Your task to perform on an android device: change the clock style Image 0: 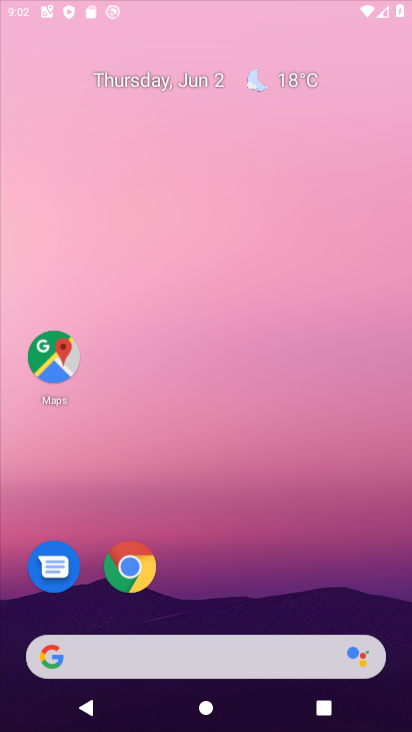
Step 0: press home button
Your task to perform on an android device: change the clock style Image 1: 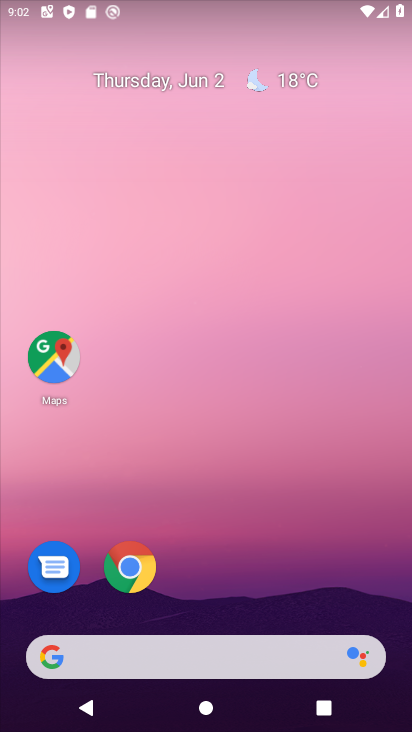
Step 1: drag from (221, 615) to (222, 0)
Your task to perform on an android device: change the clock style Image 2: 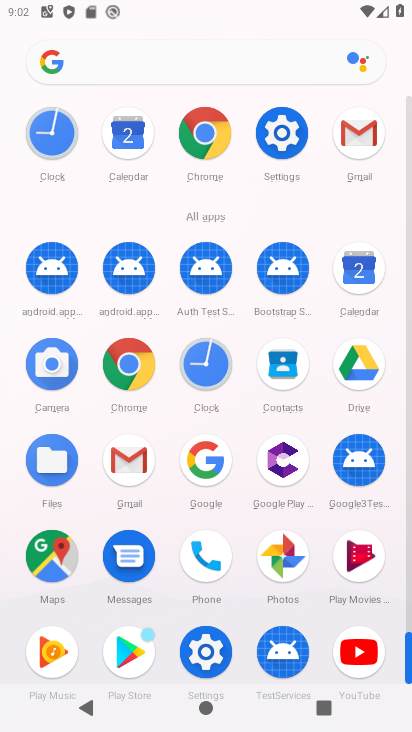
Step 2: click (205, 353)
Your task to perform on an android device: change the clock style Image 3: 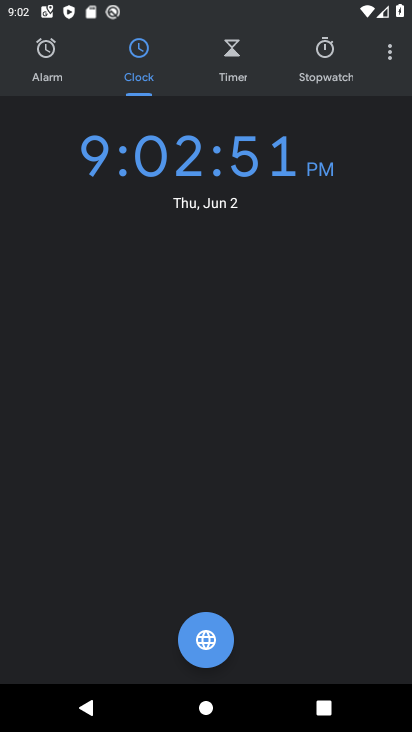
Step 3: click (382, 52)
Your task to perform on an android device: change the clock style Image 4: 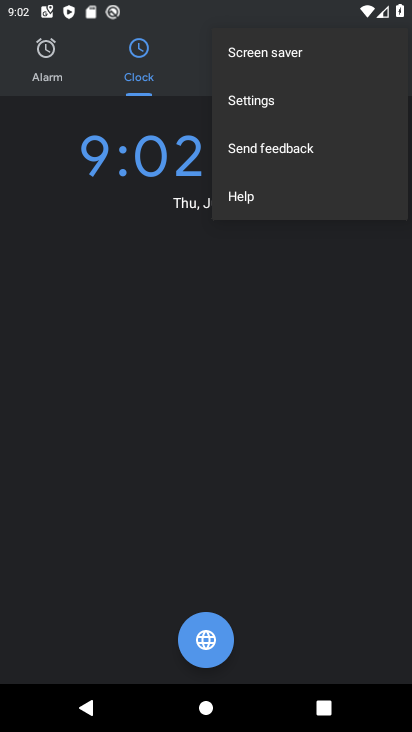
Step 4: click (282, 97)
Your task to perform on an android device: change the clock style Image 5: 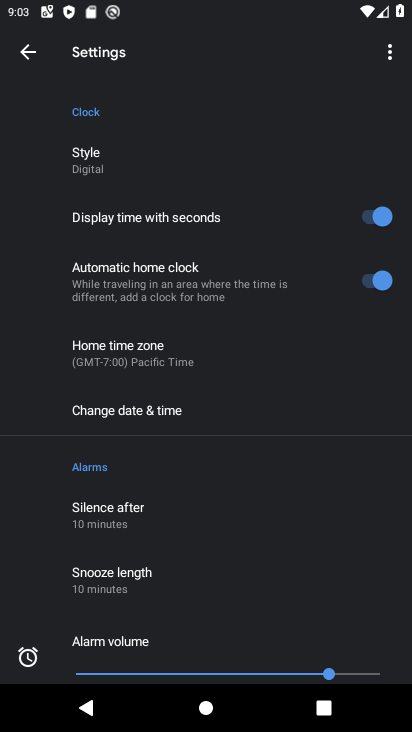
Step 5: click (147, 161)
Your task to perform on an android device: change the clock style Image 6: 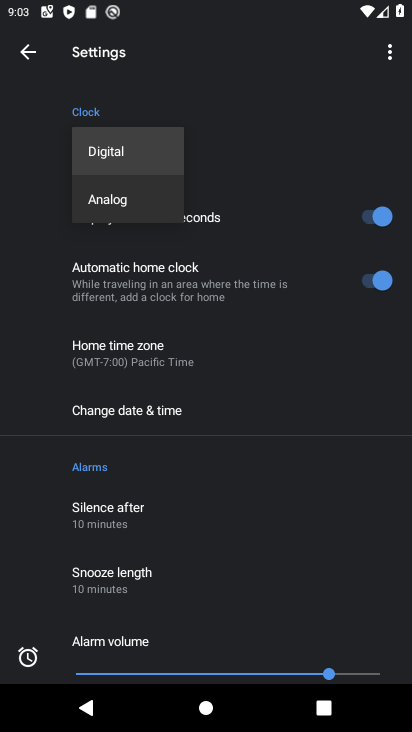
Step 6: click (148, 202)
Your task to perform on an android device: change the clock style Image 7: 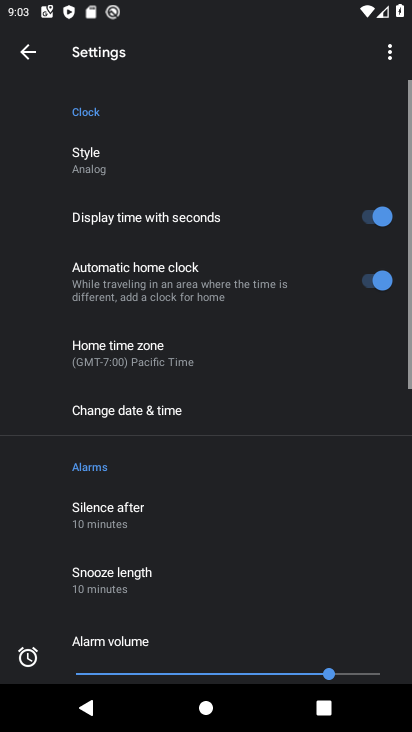
Step 7: task complete